Your task to perform on an android device: open app "Google Sheets" Image 0: 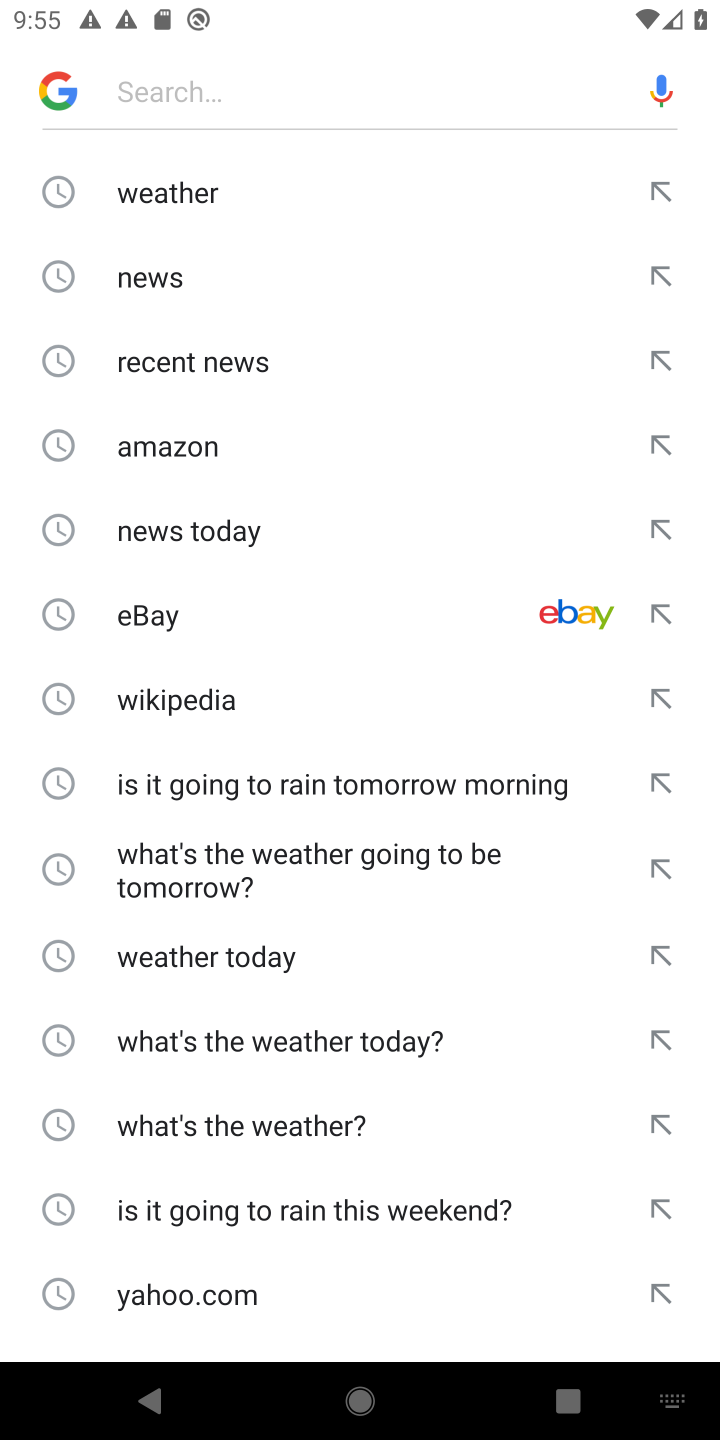
Step 0: press home button
Your task to perform on an android device: open app "Google Sheets" Image 1: 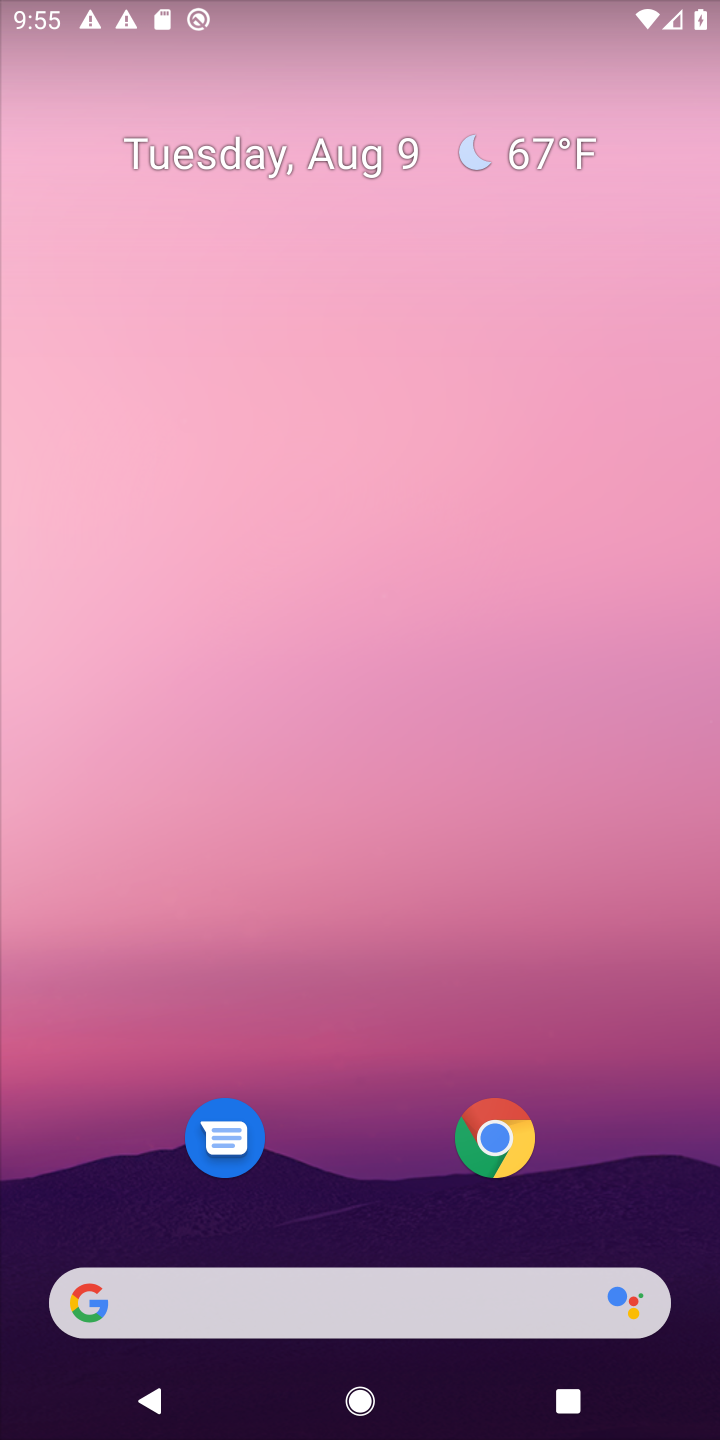
Step 1: click (570, 741)
Your task to perform on an android device: open app "Google Sheets" Image 2: 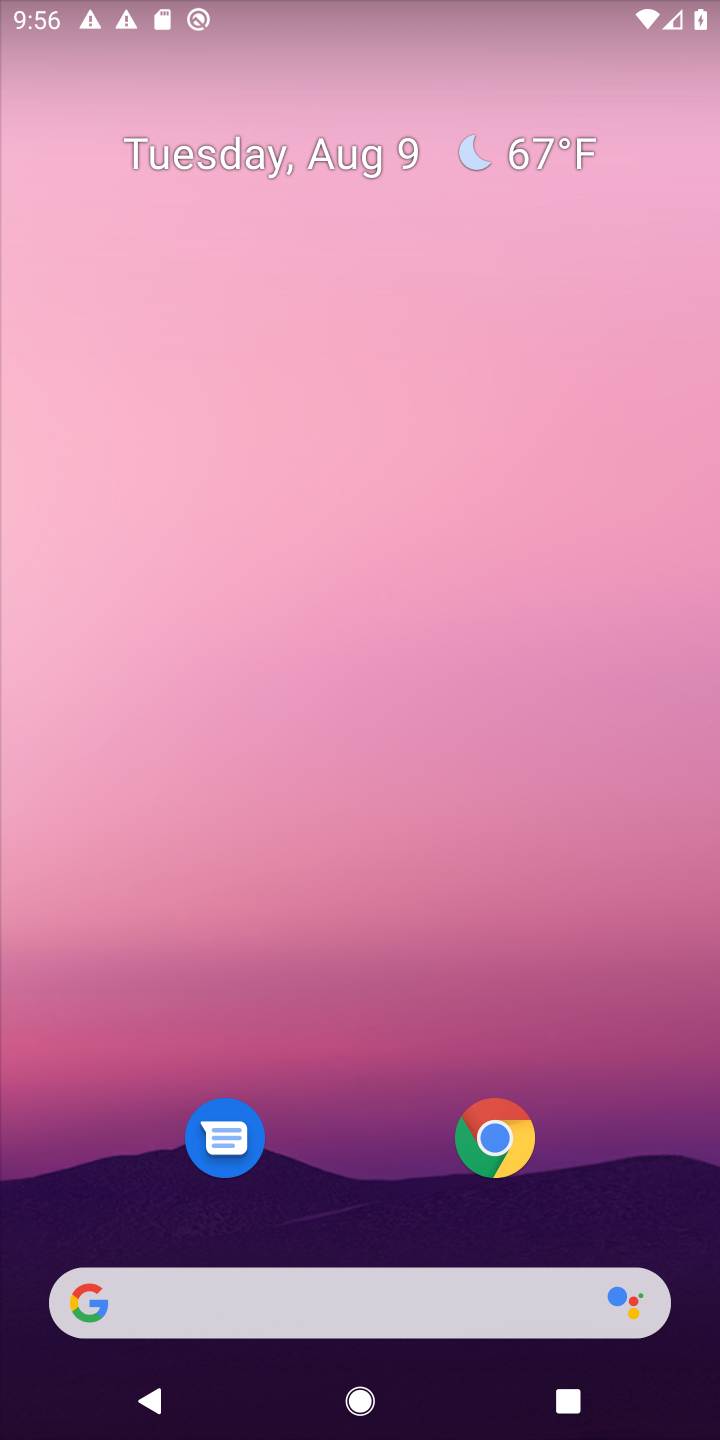
Step 2: drag from (371, 1213) to (284, 487)
Your task to perform on an android device: open app "Google Sheets" Image 3: 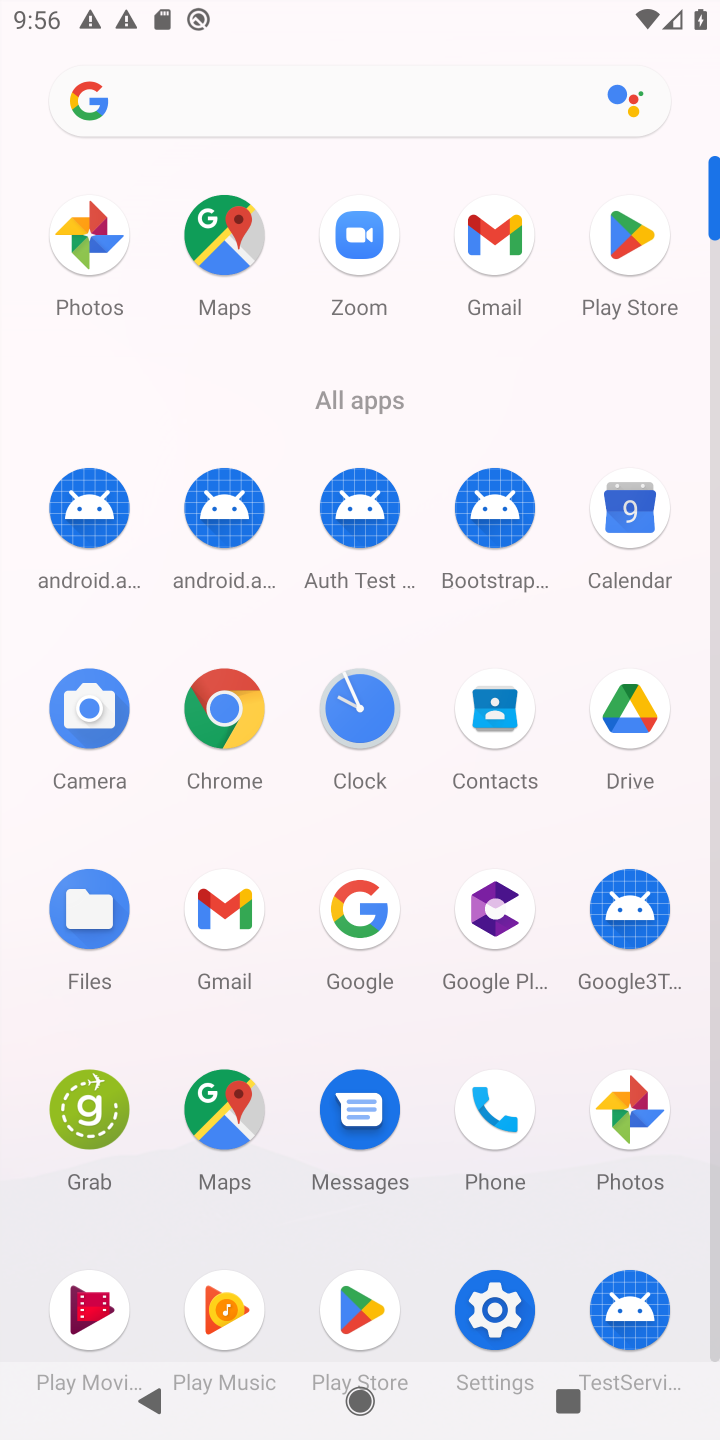
Step 3: click (624, 225)
Your task to perform on an android device: open app "Google Sheets" Image 4: 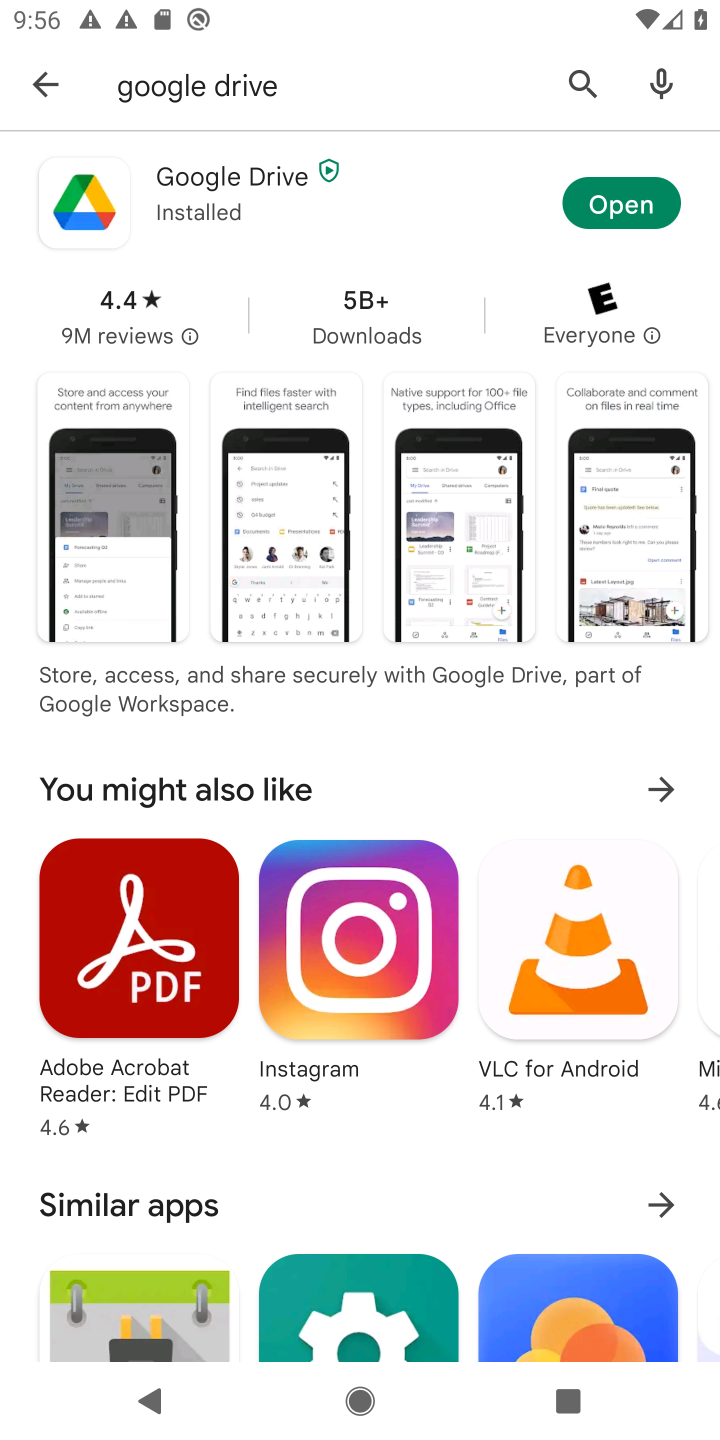
Step 4: click (576, 91)
Your task to perform on an android device: open app "Google Sheets" Image 5: 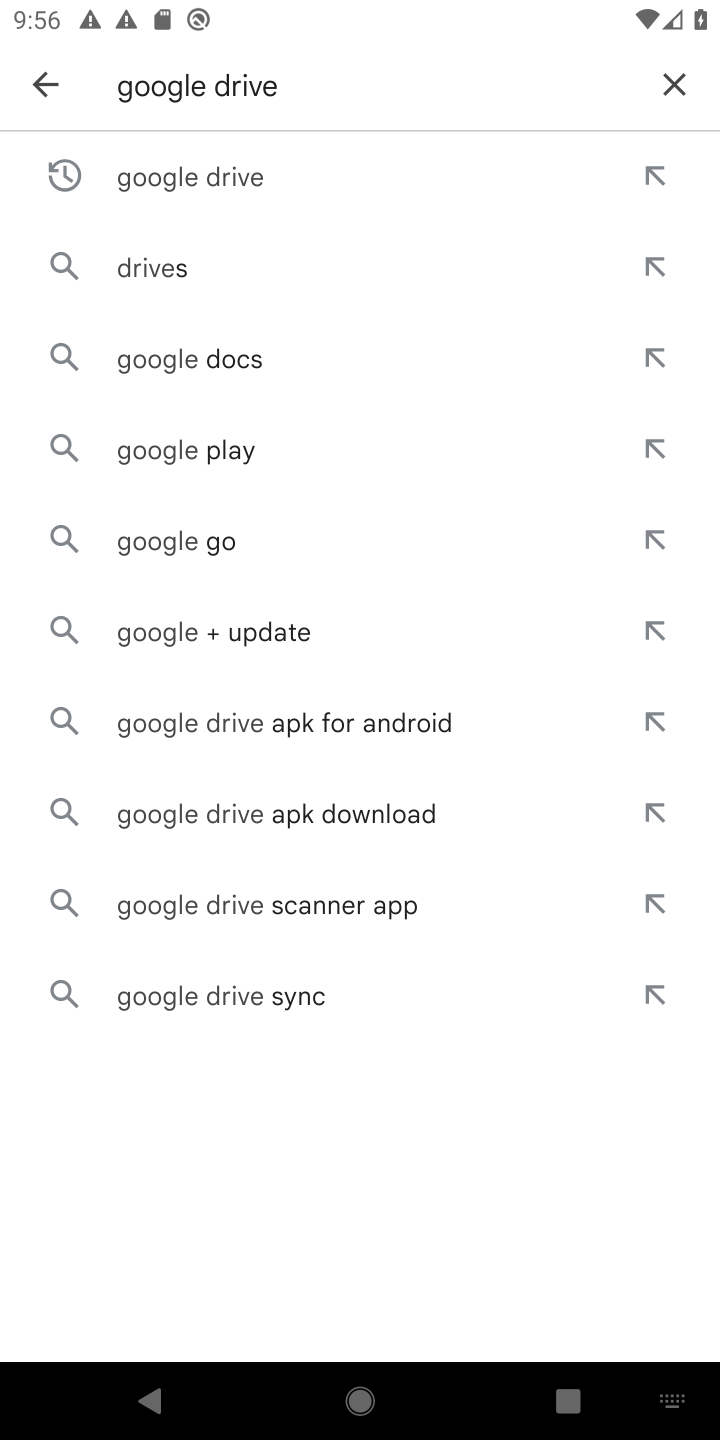
Step 5: click (670, 81)
Your task to perform on an android device: open app "Google Sheets" Image 6: 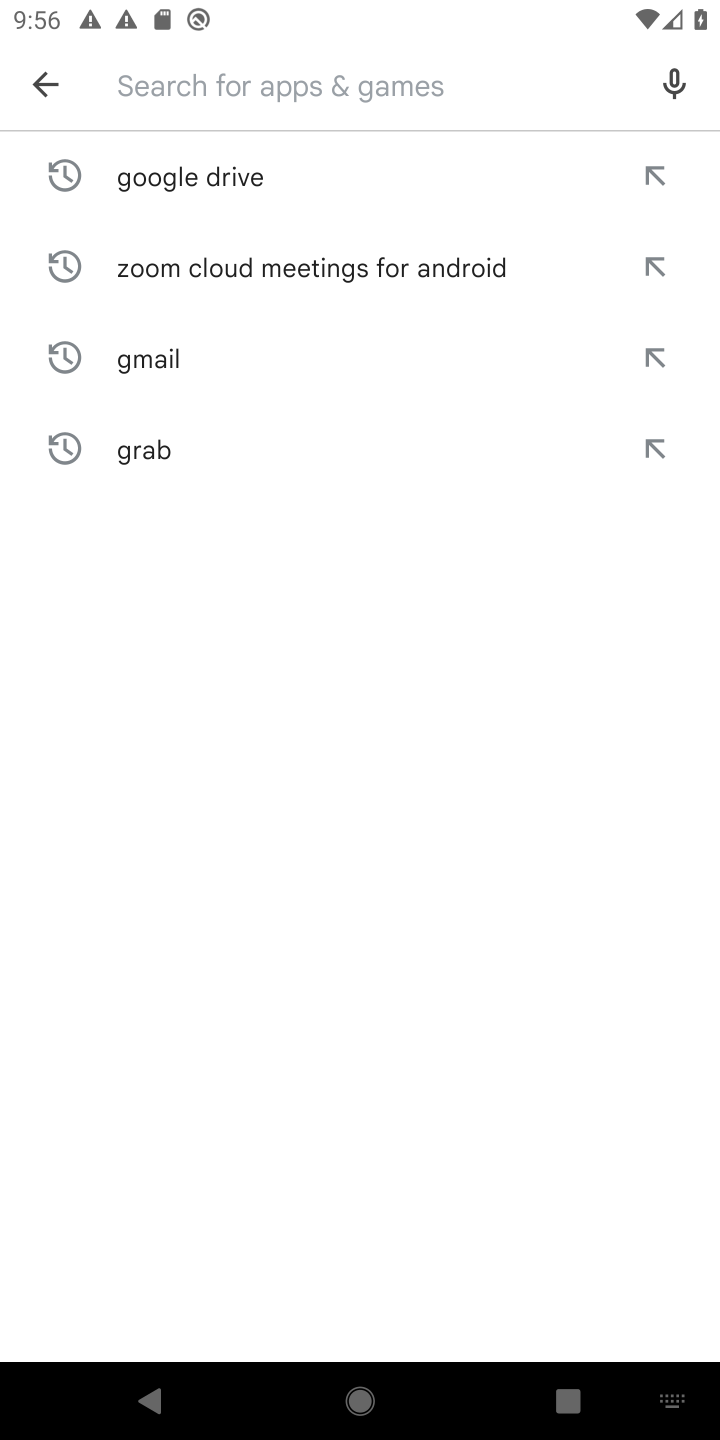
Step 6: type "google sheet"
Your task to perform on an android device: open app "Google Sheets" Image 7: 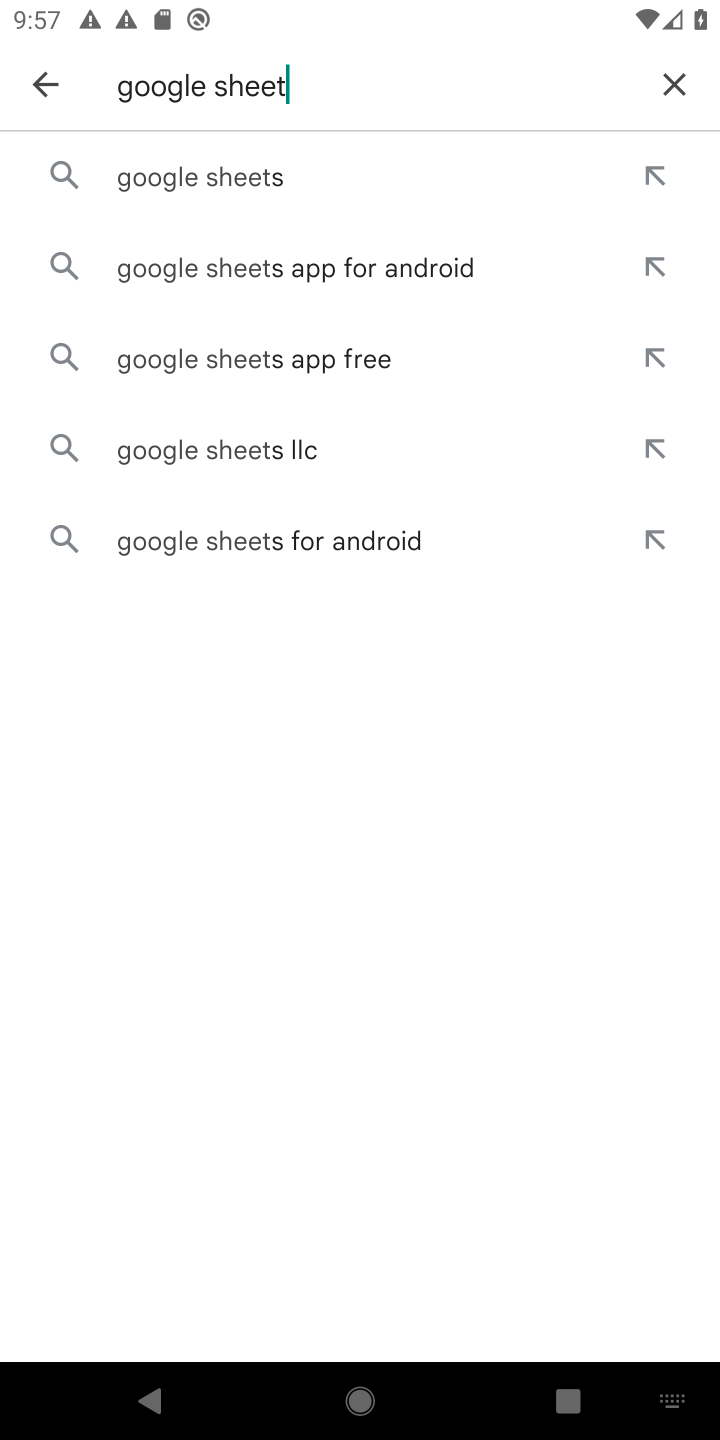
Step 7: click (285, 177)
Your task to perform on an android device: open app "Google Sheets" Image 8: 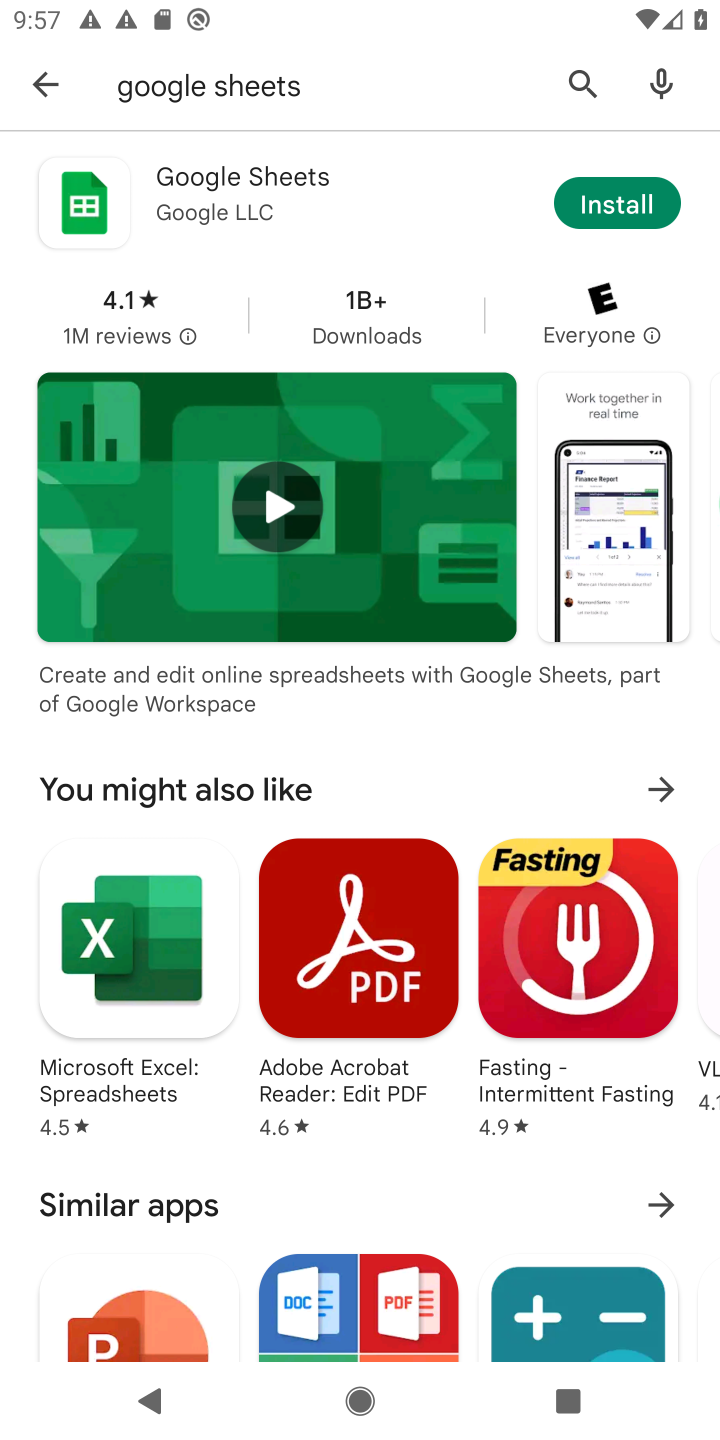
Step 8: click (614, 206)
Your task to perform on an android device: open app "Google Sheets" Image 9: 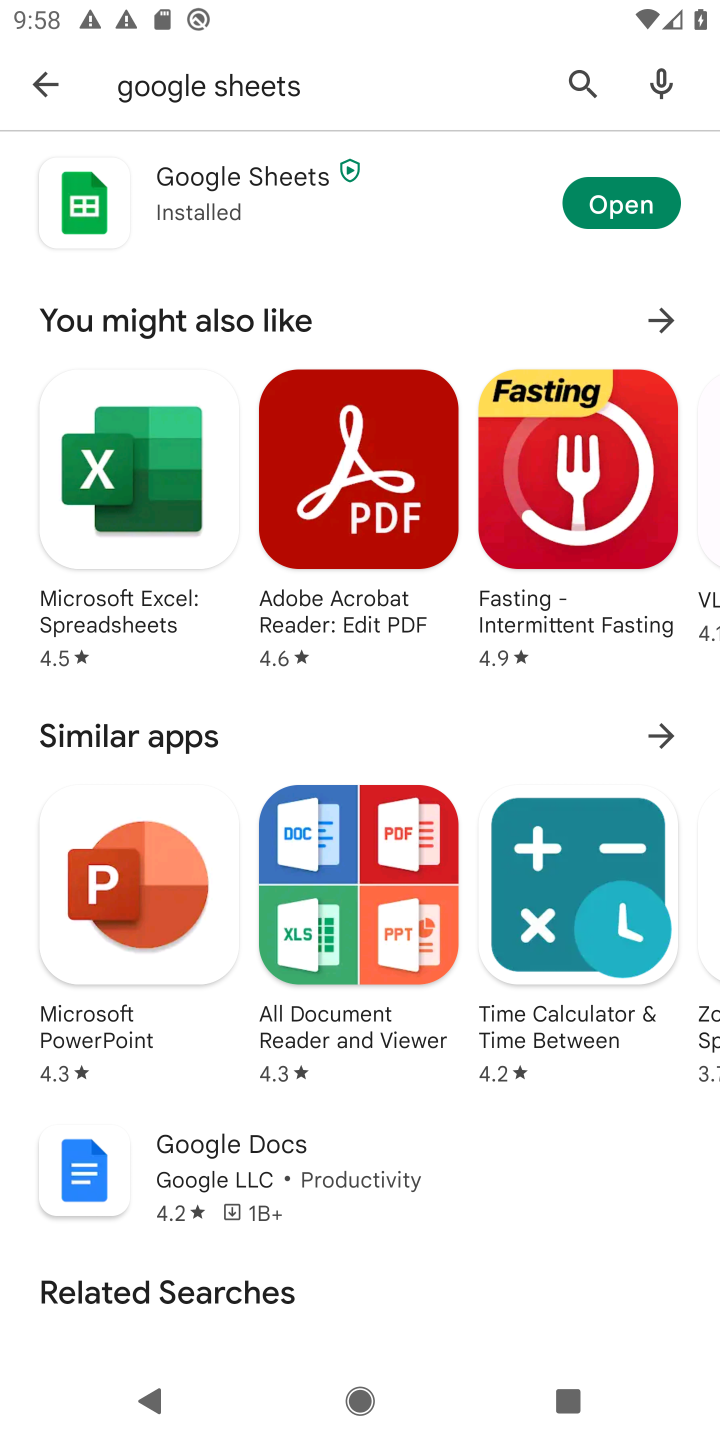
Step 9: click (615, 193)
Your task to perform on an android device: open app "Google Sheets" Image 10: 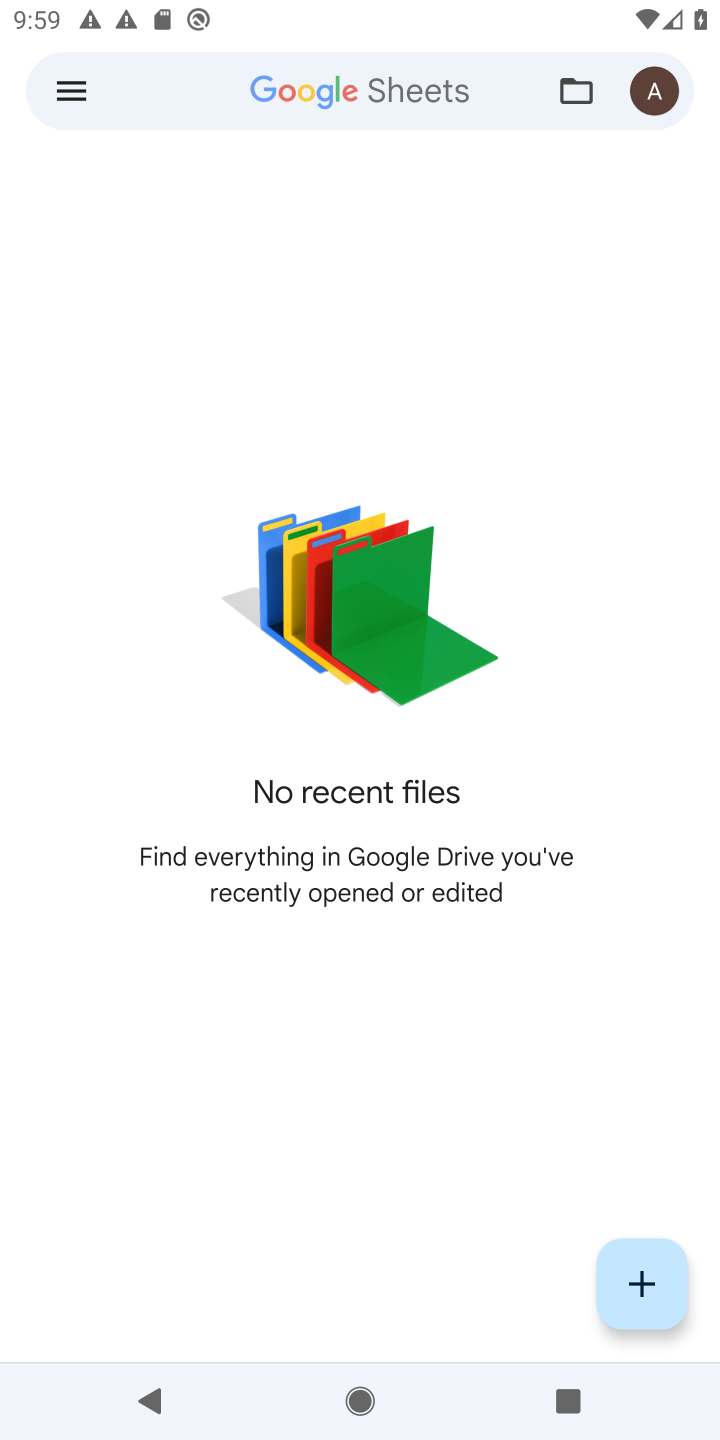
Step 10: task complete